Your task to perform on an android device: delete a single message in the gmail app Image 0: 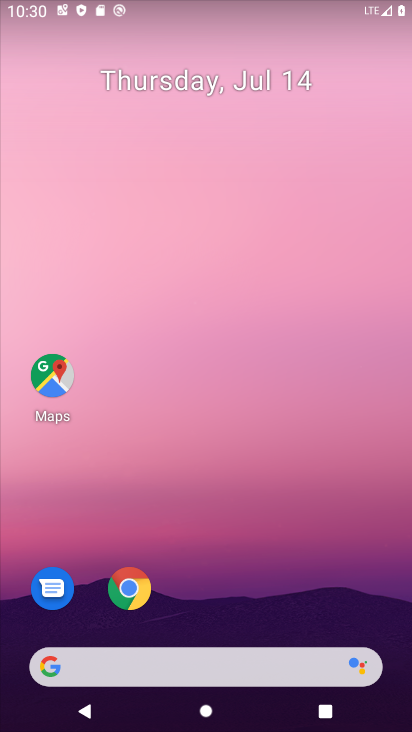
Step 0: click (167, 4)
Your task to perform on an android device: delete a single message in the gmail app Image 1: 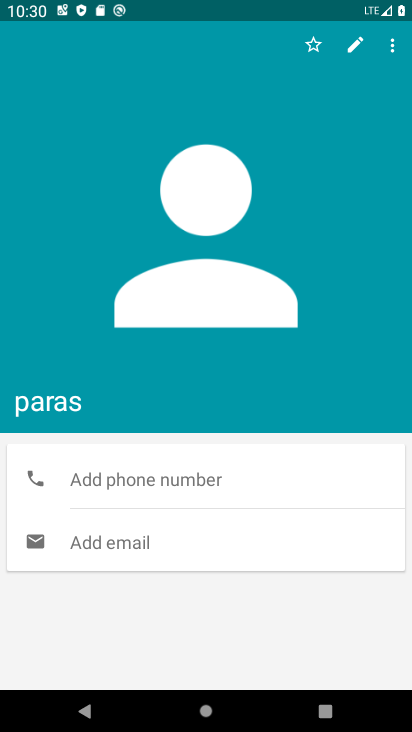
Step 1: press home button
Your task to perform on an android device: delete a single message in the gmail app Image 2: 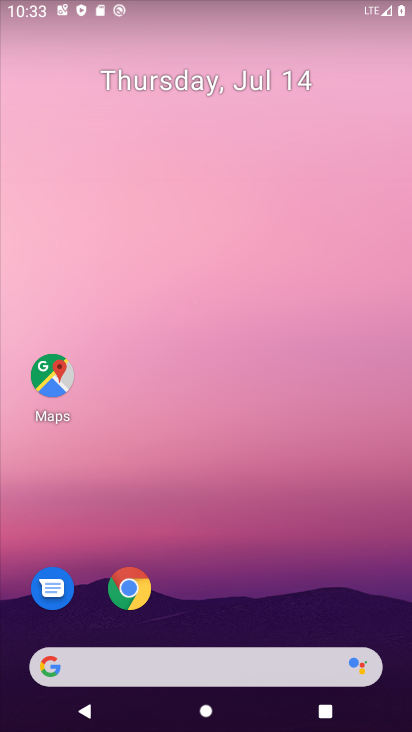
Step 2: drag from (344, 592) to (228, 6)
Your task to perform on an android device: delete a single message in the gmail app Image 3: 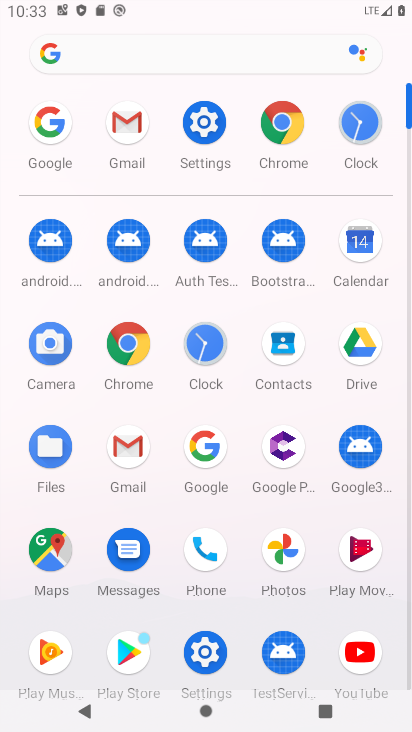
Step 3: click (129, 141)
Your task to perform on an android device: delete a single message in the gmail app Image 4: 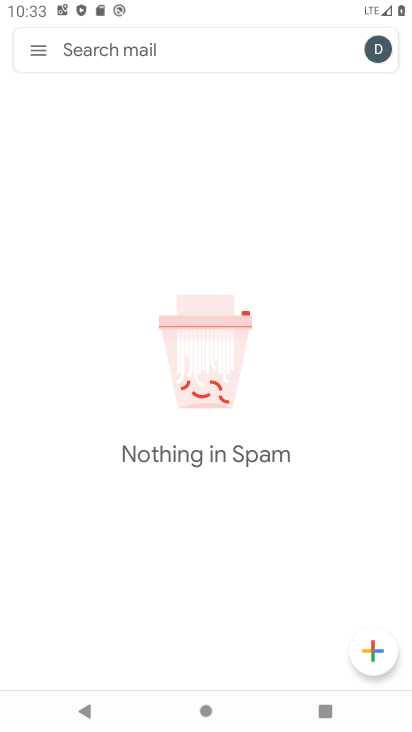
Step 4: task complete